Your task to perform on an android device: Open Yahoo.com Image 0: 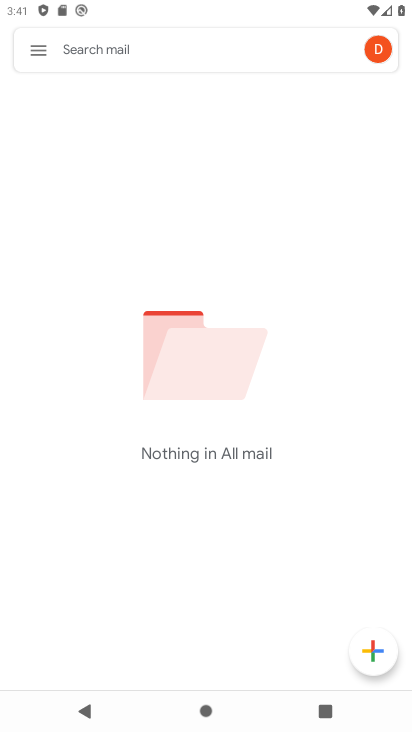
Step 0: press home button
Your task to perform on an android device: Open Yahoo.com Image 1: 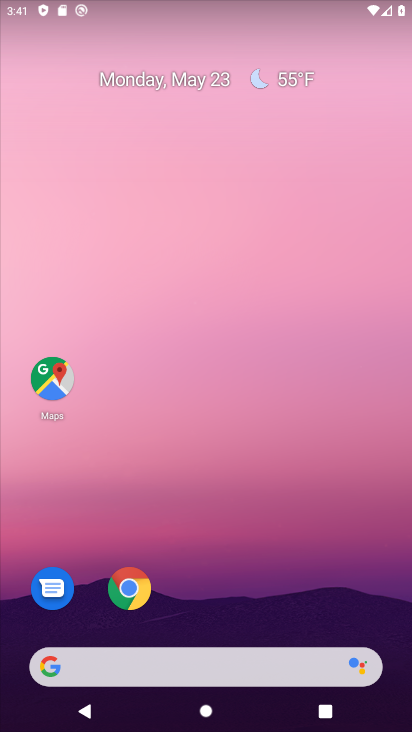
Step 1: click (123, 591)
Your task to perform on an android device: Open Yahoo.com Image 2: 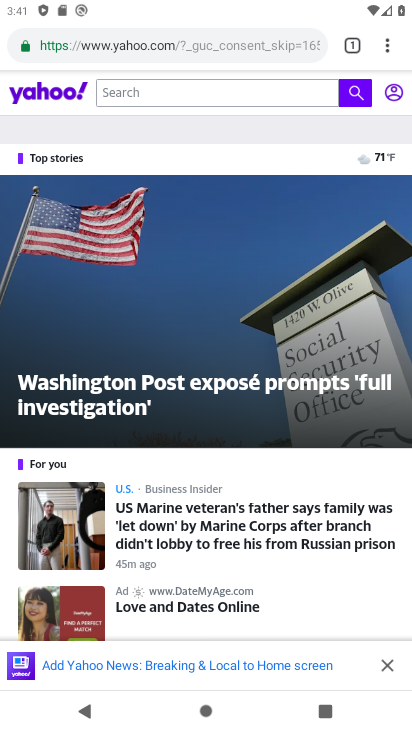
Step 2: task complete